Your task to perform on an android device: What is the speed of sound? Image 0: 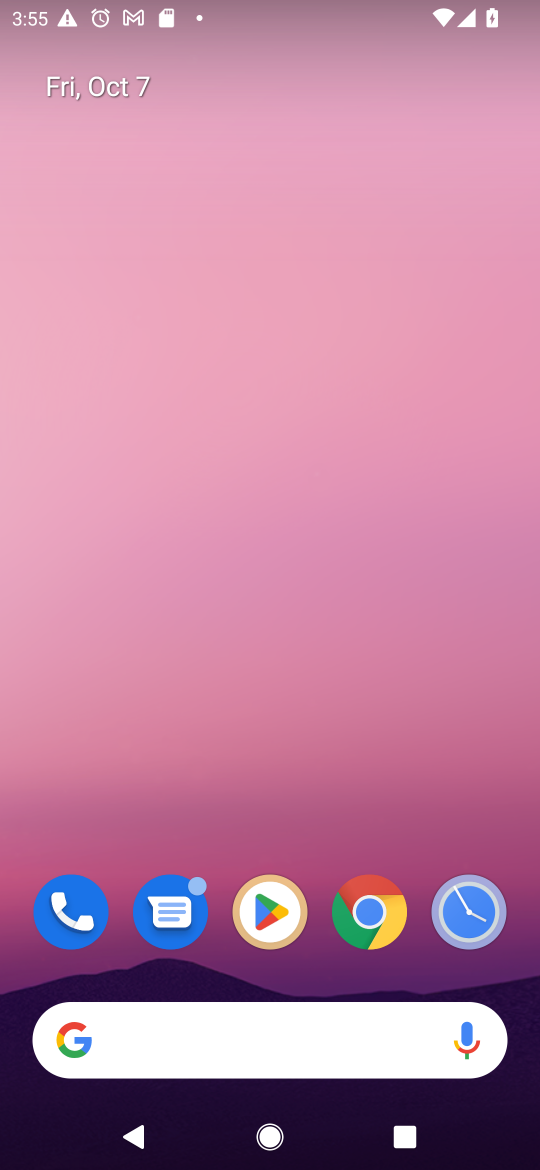
Step 0: drag from (217, 755) to (223, 352)
Your task to perform on an android device: What is the speed of sound? Image 1: 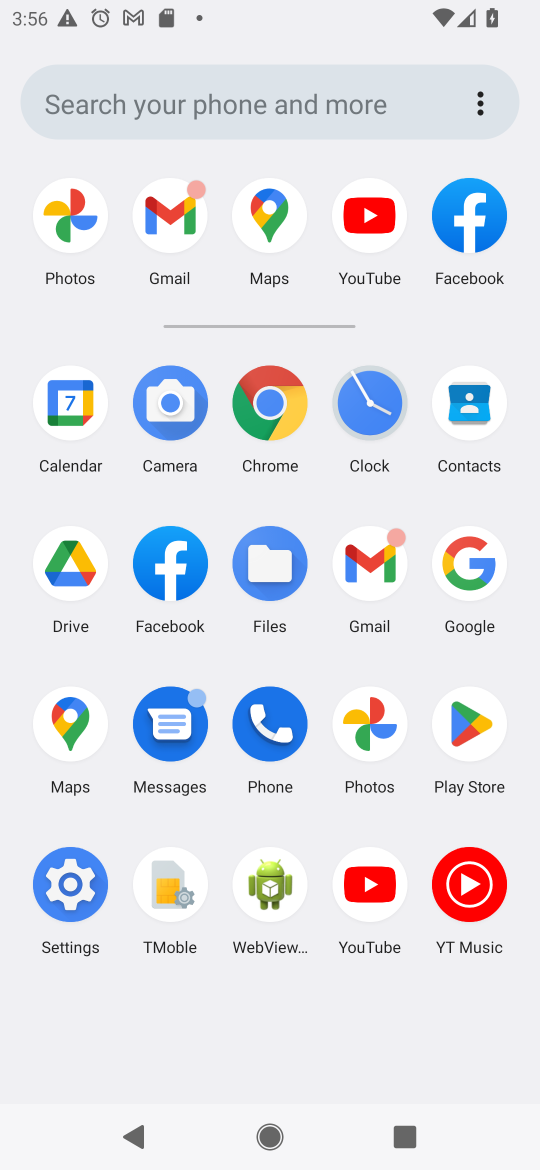
Step 1: click (460, 561)
Your task to perform on an android device: What is the speed of sound? Image 2: 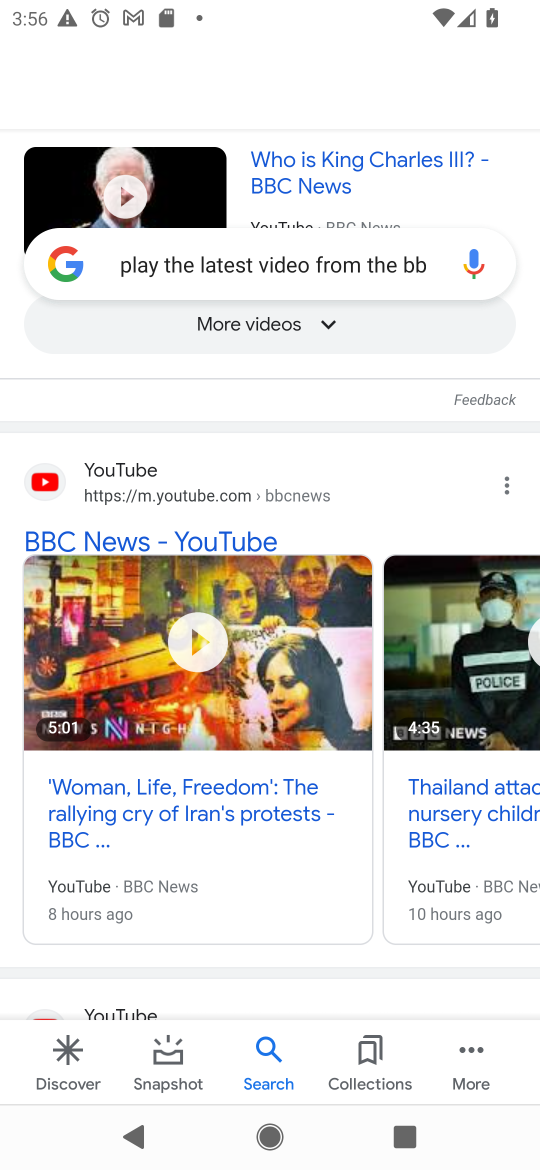
Step 2: click (377, 257)
Your task to perform on an android device: What is the speed of sound? Image 3: 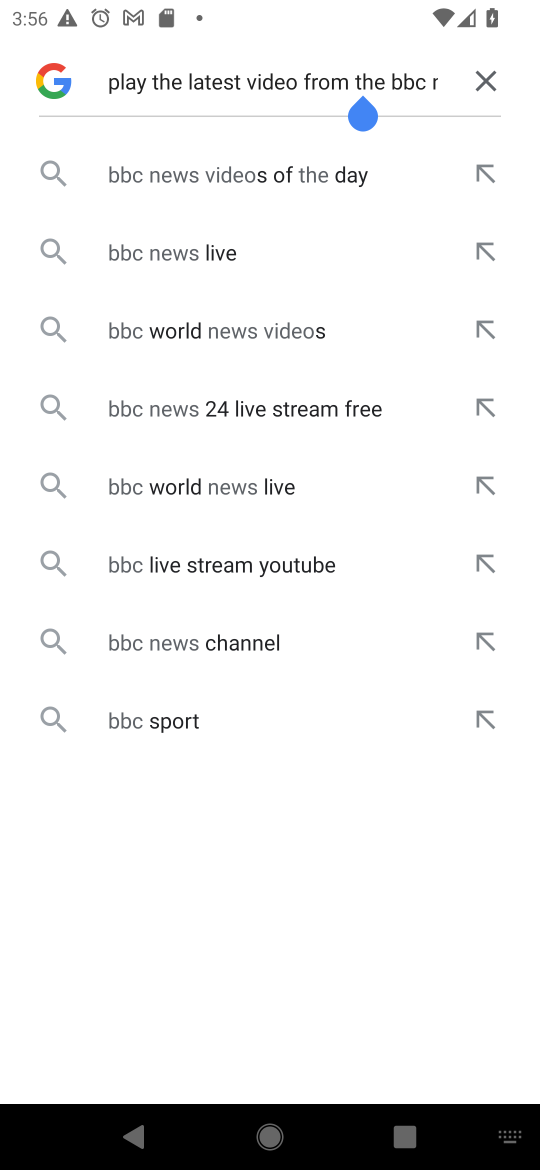
Step 3: click (478, 79)
Your task to perform on an android device: What is the speed of sound? Image 4: 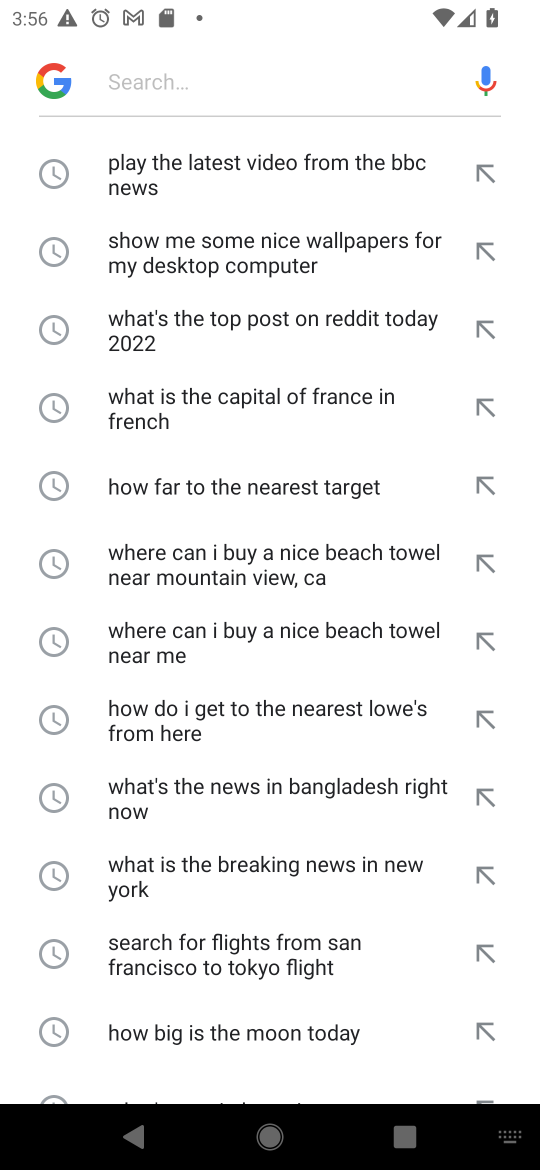
Step 4: click (305, 76)
Your task to perform on an android device: What is the speed of sound? Image 5: 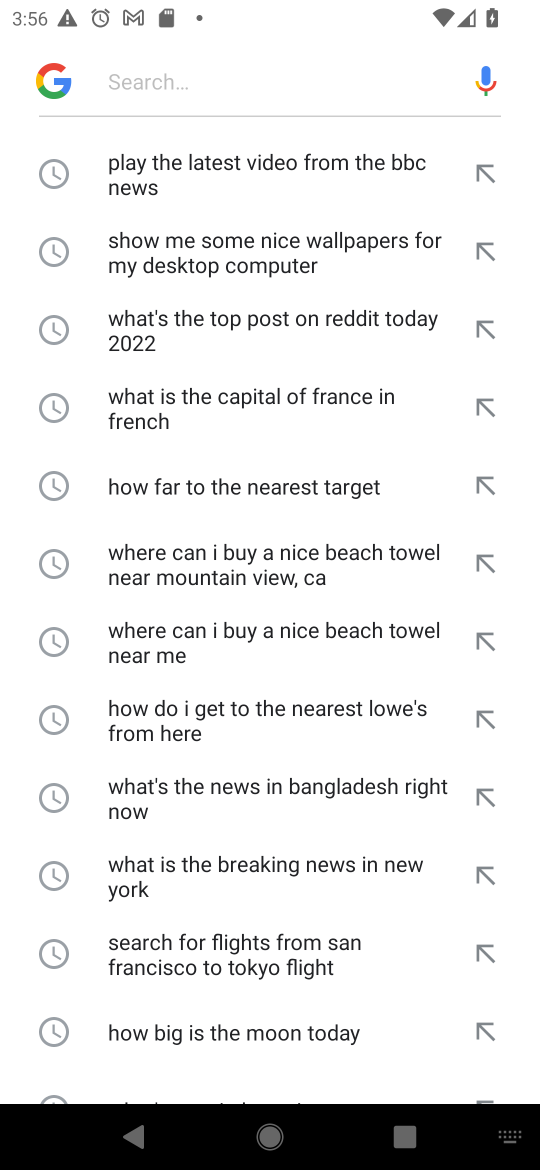
Step 5: type "What is the speed of sound "
Your task to perform on an android device: What is the speed of sound? Image 6: 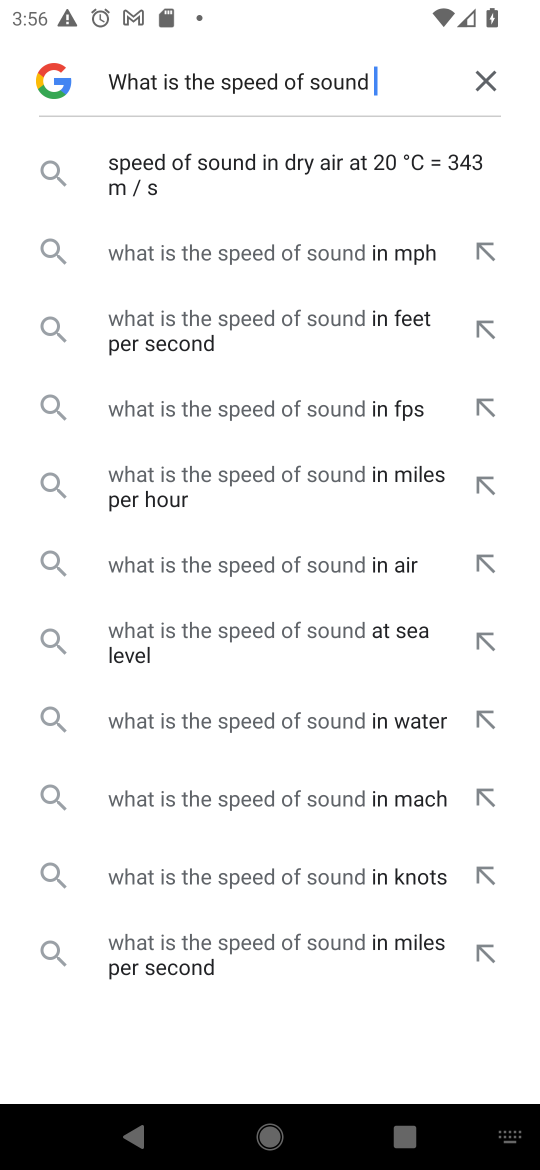
Step 6: click (250, 254)
Your task to perform on an android device: What is the speed of sound? Image 7: 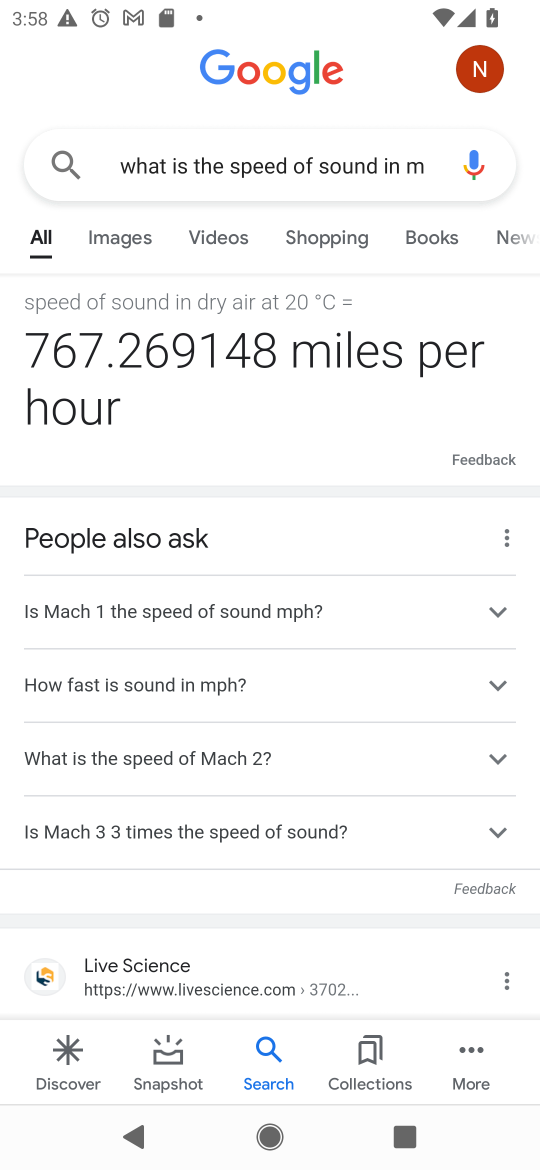
Step 7: task complete